Your task to perform on an android device: Add usb-c to the cart on ebay.com, then select checkout. Image 0: 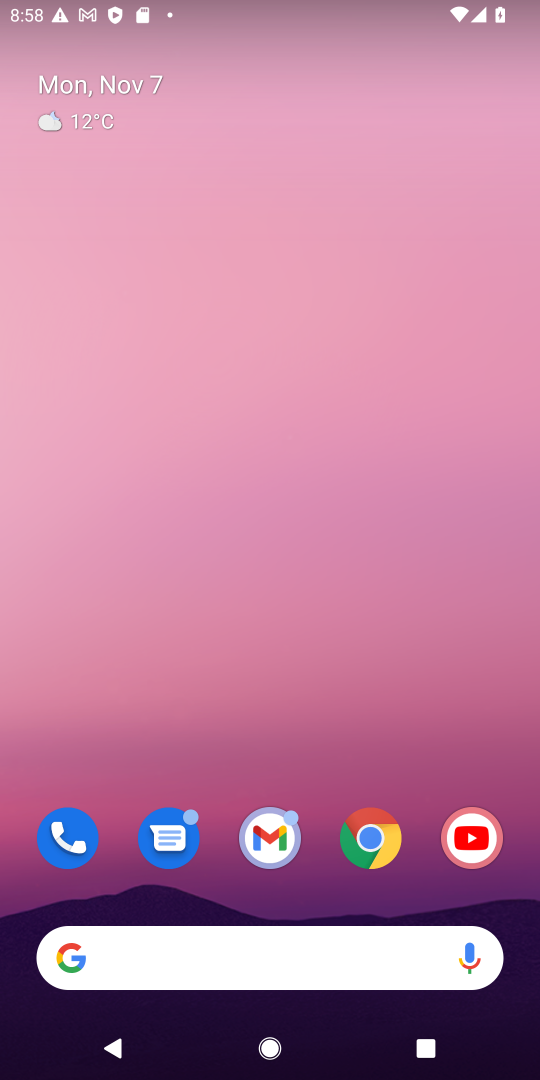
Step 0: click (366, 830)
Your task to perform on an android device: Add usb-c to the cart on ebay.com, then select checkout. Image 1: 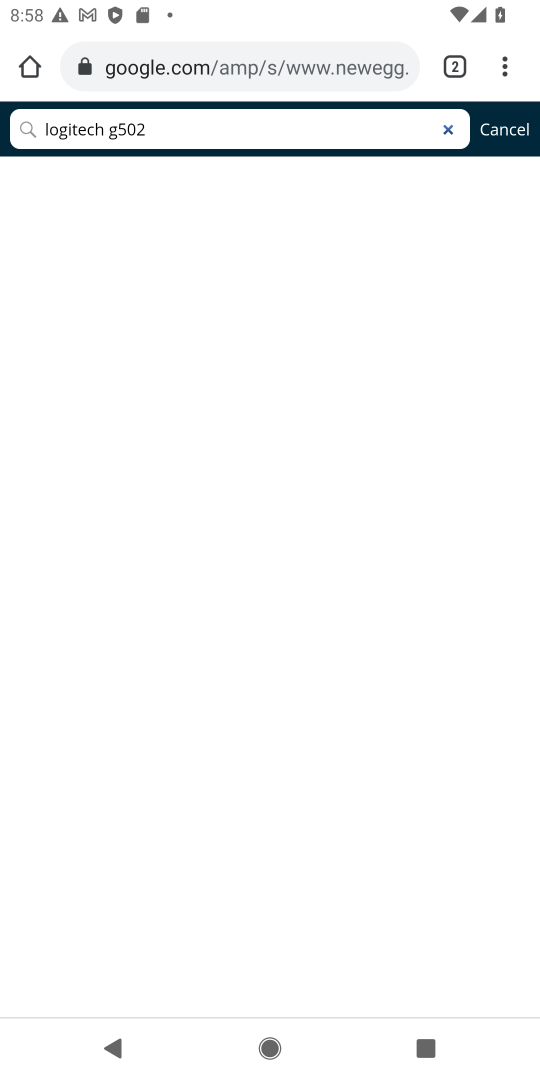
Step 1: click (457, 66)
Your task to perform on an android device: Add usb-c to the cart on ebay.com, then select checkout. Image 2: 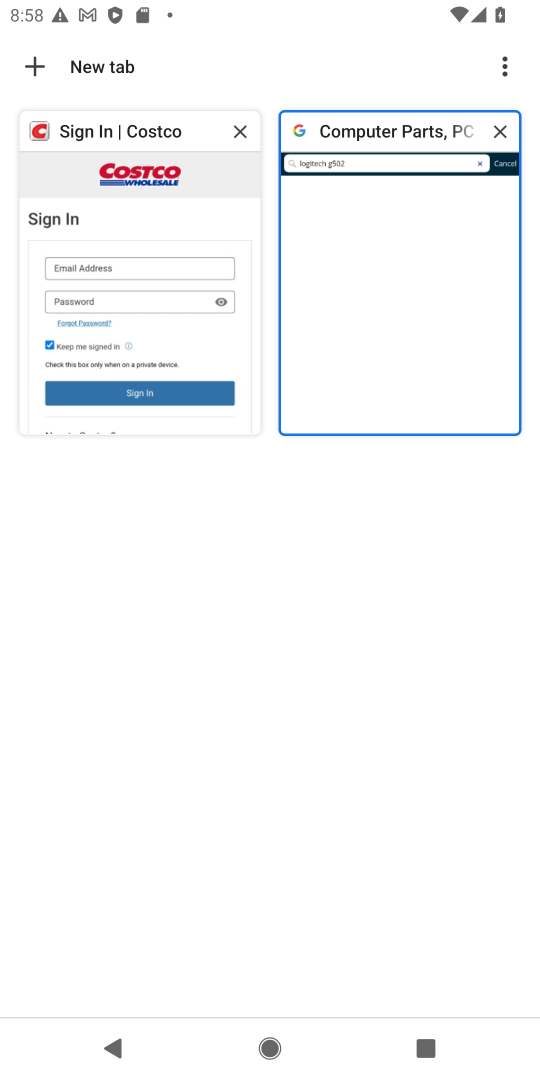
Step 2: click (36, 73)
Your task to perform on an android device: Add usb-c to the cart on ebay.com, then select checkout. Image 3: 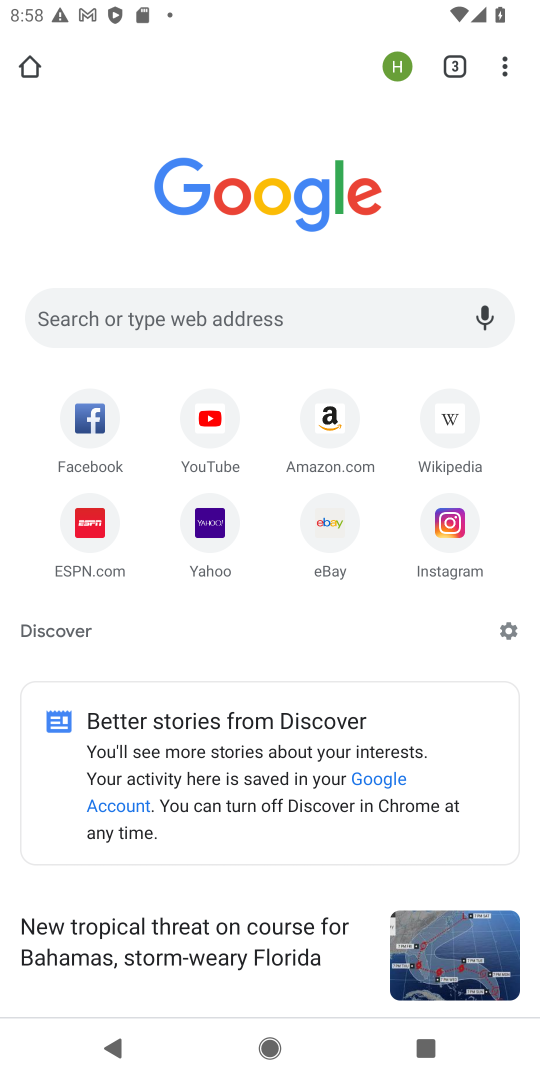
Step 3: click (332, 513)
Your task to perform on an android device: Add usb-c to the cart on ebay.com, then select checkout. Image 4: 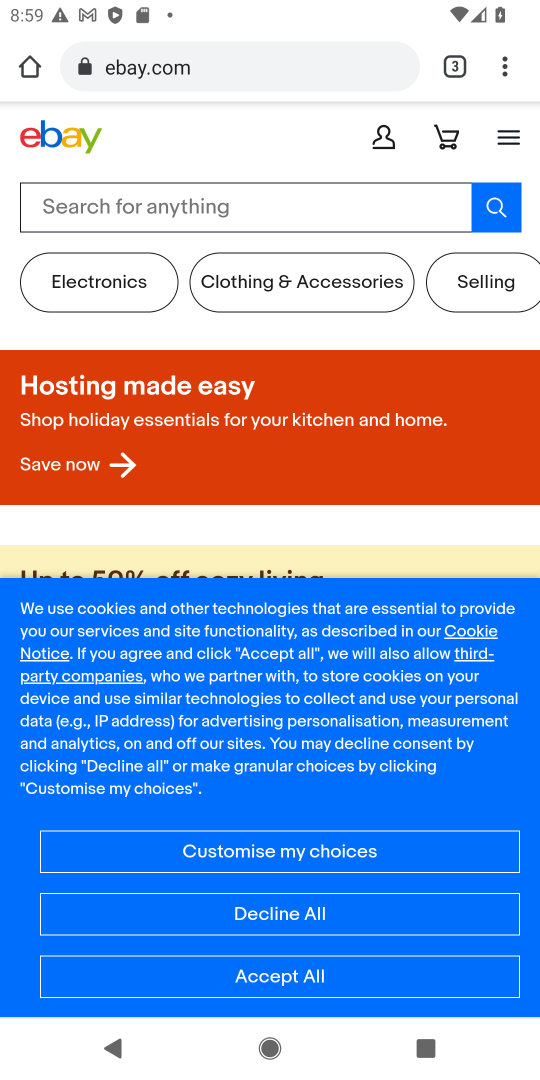
Step 4: click (246, 919)
Your task to perform on an android device: Add usb-c to the cart on ebay.com, then select checkout. Image 5: 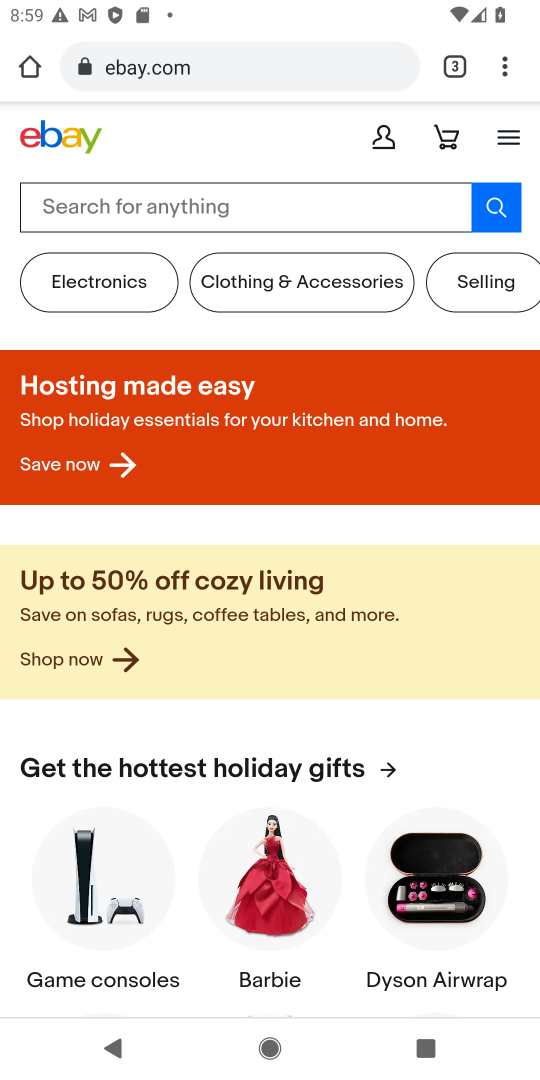
Step 5: click (164, 213)
Your task to perform on an android device: Add usb-c to the cart on ebay.com, then select checkout. Image 6: 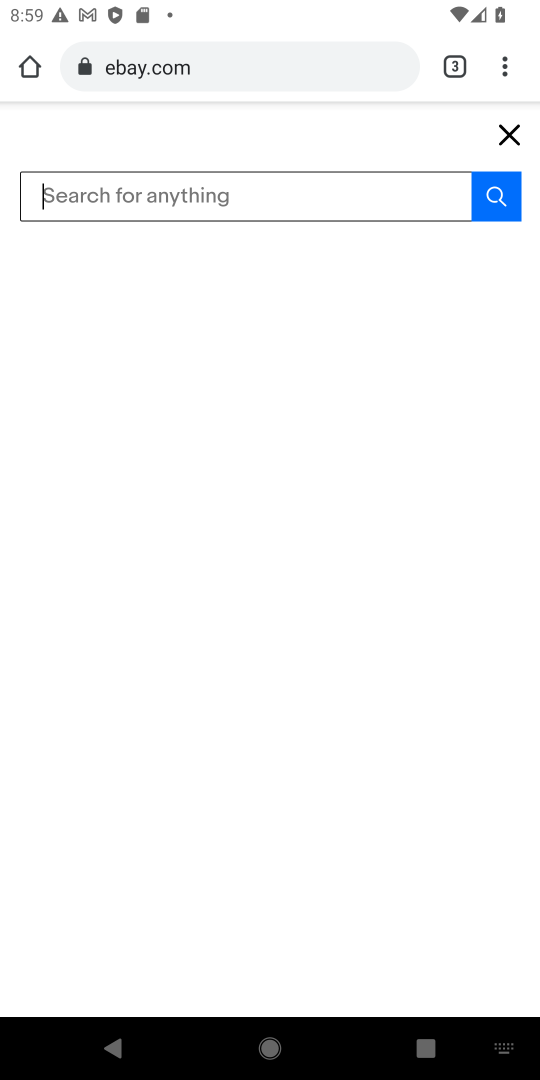
Step 6: type "usb-c"
Your task to perform on an android device: Add usb-c to the cart on ebay.com, then select checkout. Image 7: 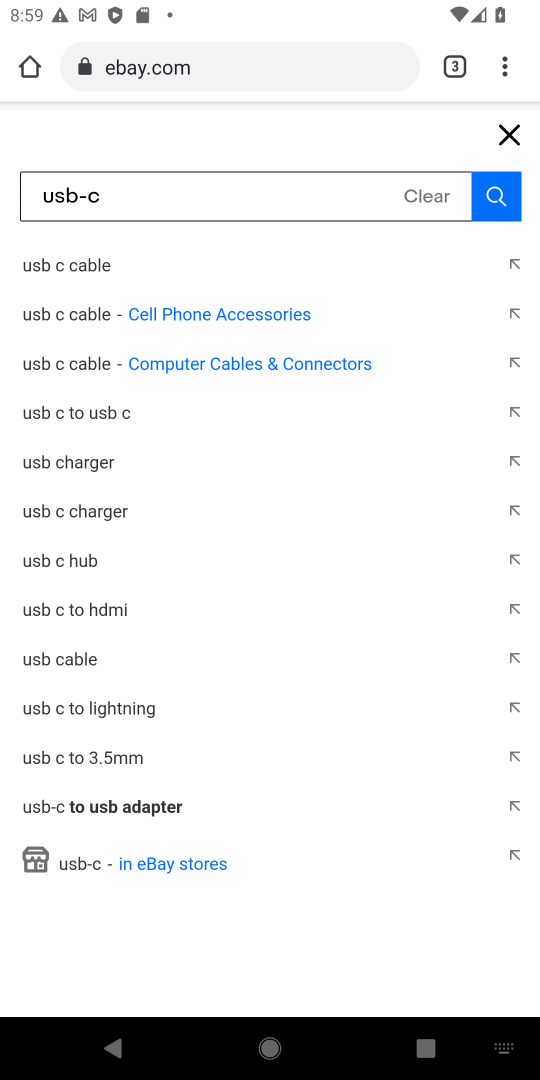
Step 7: click (89, 316)
Your task to perform on an android device: Add usb-c to the cart on ebay.com, then select checkout. Image 8: 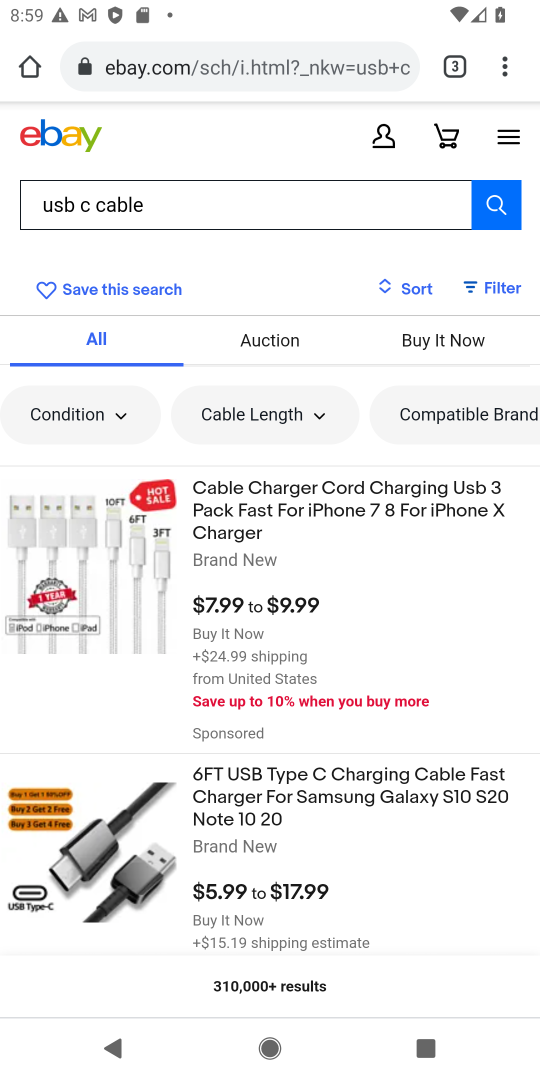
Step 8: click (349, 537)
Your task to perform on an android device: Add usb-c to the cart on ebay.com, then select checkout. Image 9: 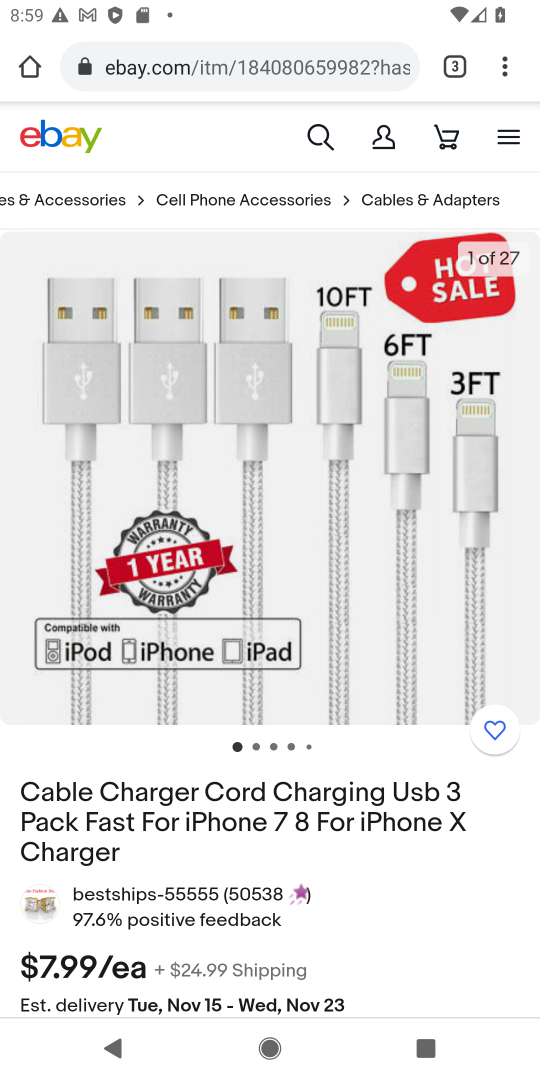
Step 9: drag from (383, 810) to (389, 15)
Your task to perform on an android device: Add usb-c to the cart on ebay.com, then select checkout. Image 10: 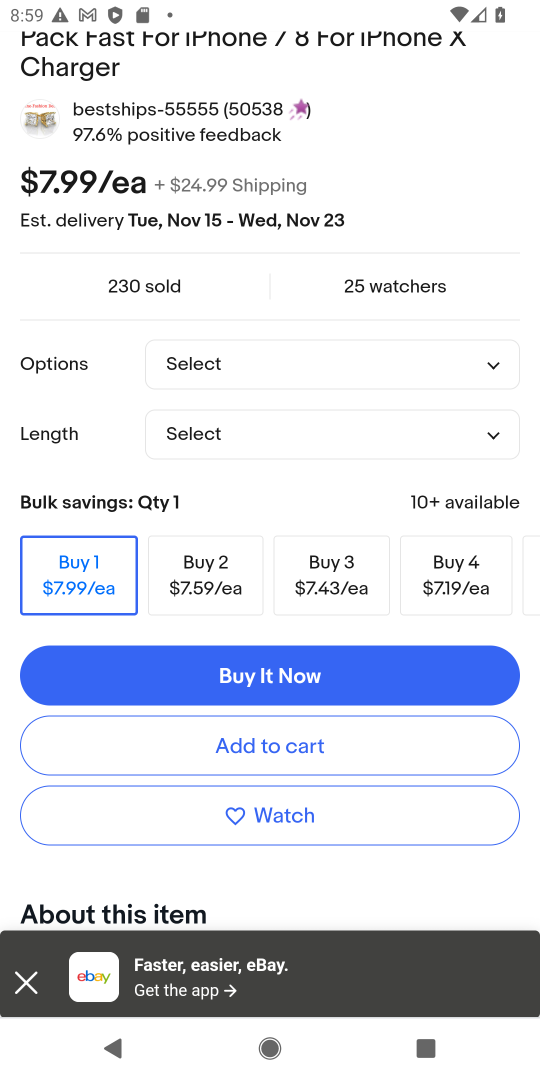
Step 10: click (341, 765)
Your task to perform on an android device: Add usb-c to the cart on ebay.com, then select checkout. Image 11: 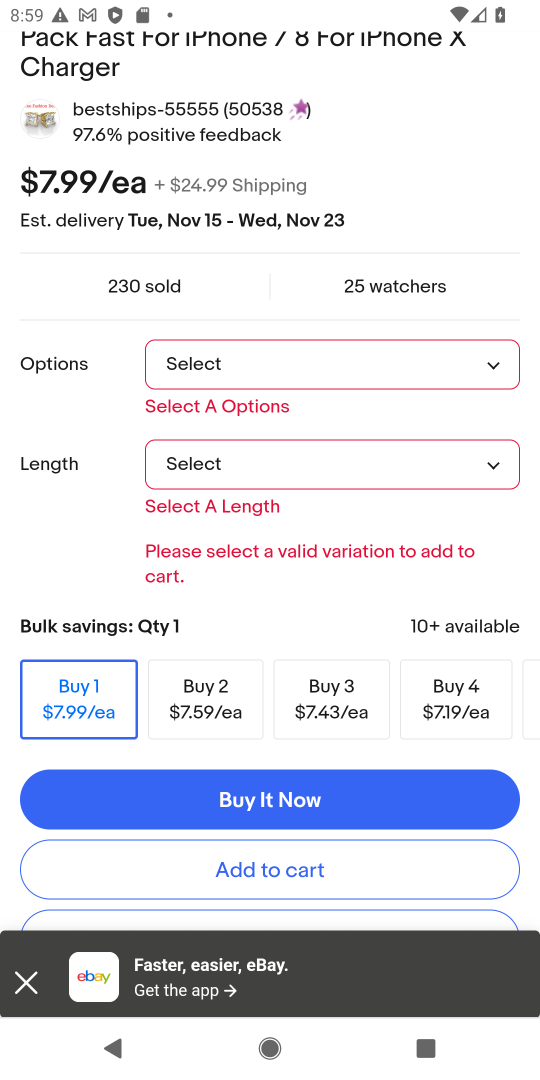
Step 11: click (486, 362)
Your task to perform on an android device: Add usb-c to the cart on ebay.com, then select checkout. Image 12: 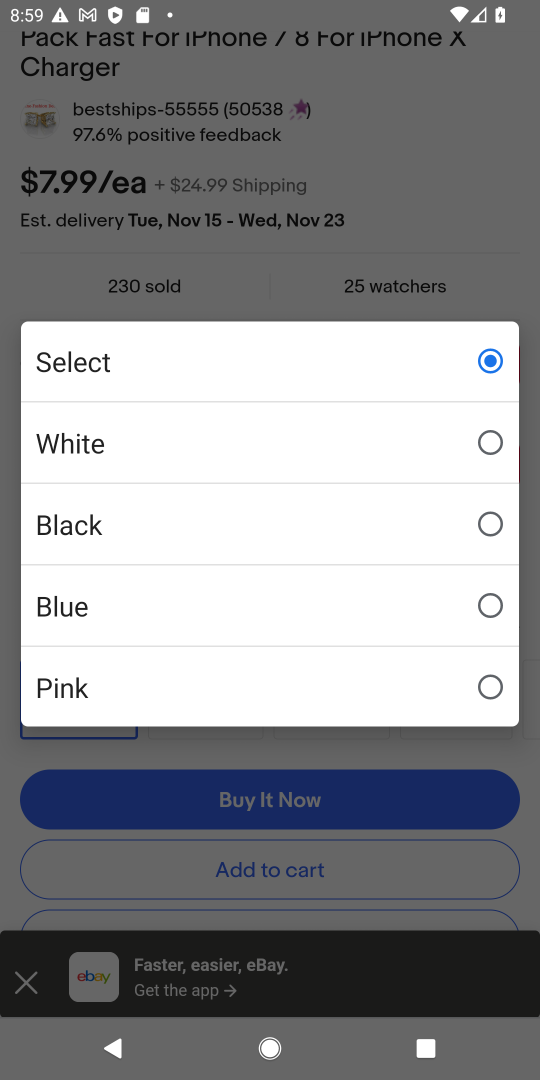
Step 12: click (212, 452)
Your task to perform on an android device: Add usb-c to the cart on ebay.com, then select checkout. Image 13: 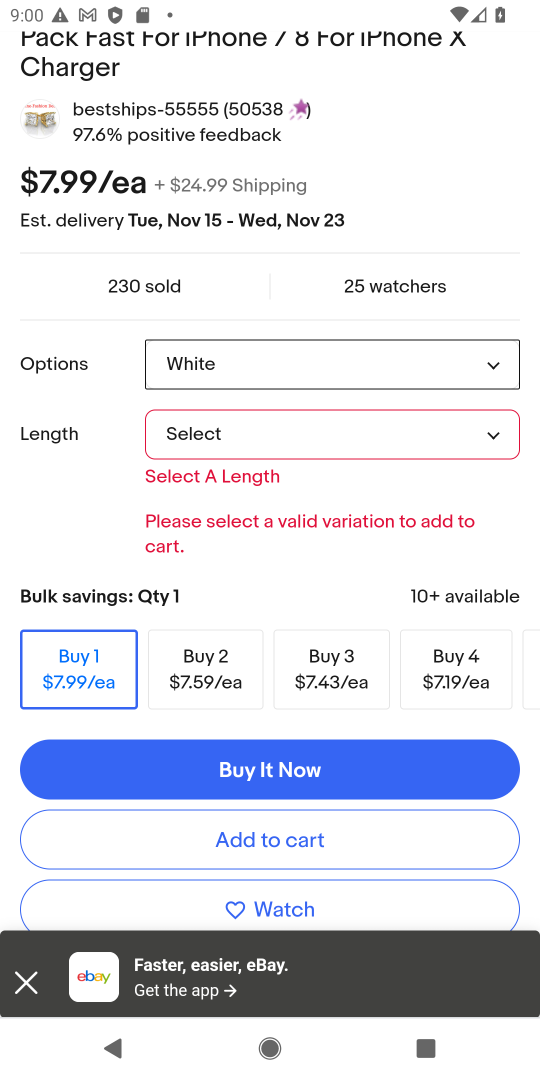
Step 13: click (336, 441)
Your task to perform on an android device: Add usb-c to the cart on ebay.com, then select checkout. Image 14: 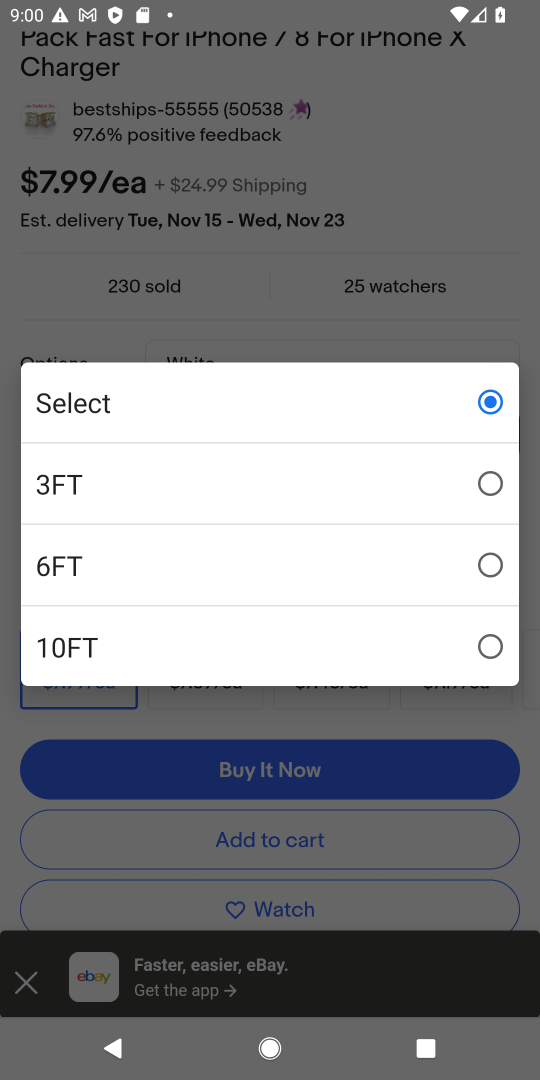
Step 14: click (245, 486)
Your task to perform on an android device: Add usb-c to the cart on ebay.com, then select checkout. Image 15: 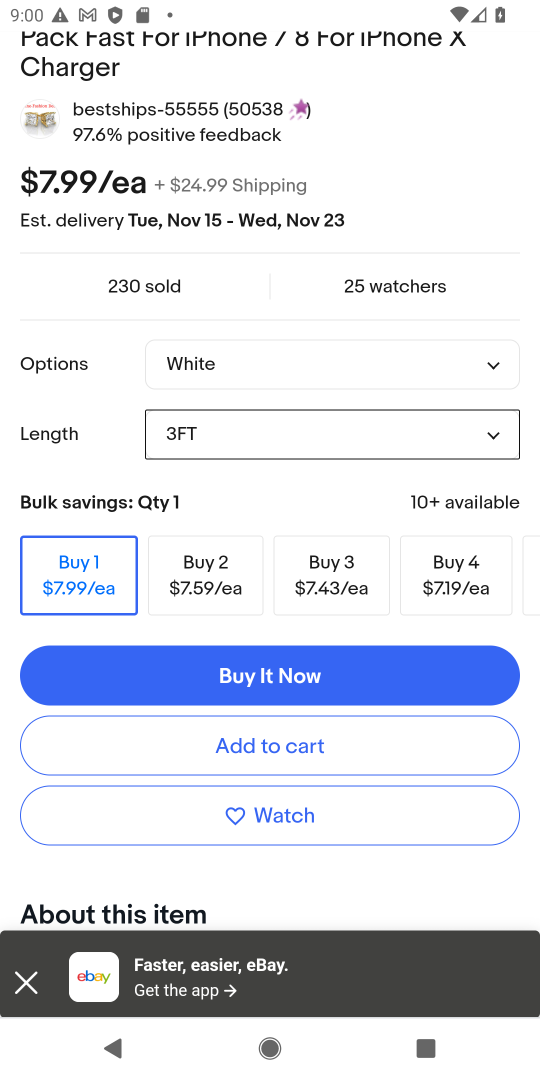
Step 15: click (365, 749)
Your task to perform on an android device: Add usb-c to the cart on ebay.com, then select checkout. Image 16: 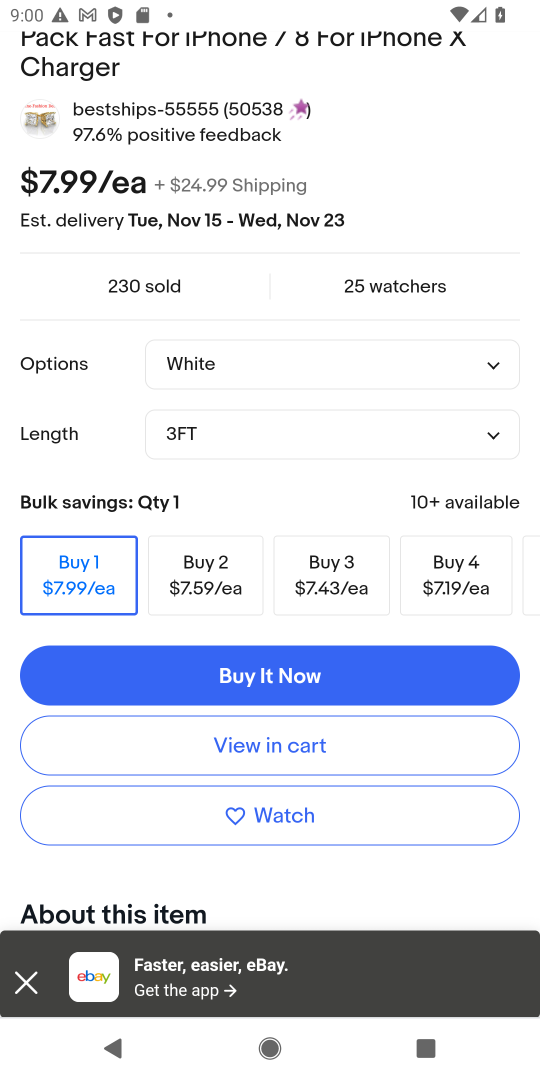
Step 16: click (309, 746)
Your task to perform on an android device: Add usb-c to the cart on ebay.com, then select checkout. Image 17: 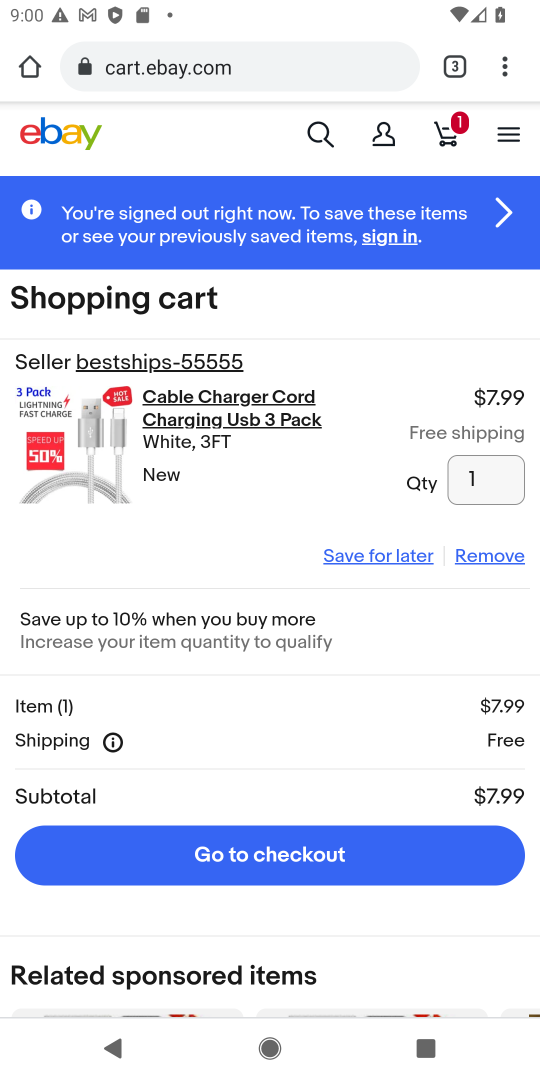
Step 17: click (328, 852)
Your task to perform on an android device: Add usb-c to the cart on ebay.com, then select checkout. Image 18: 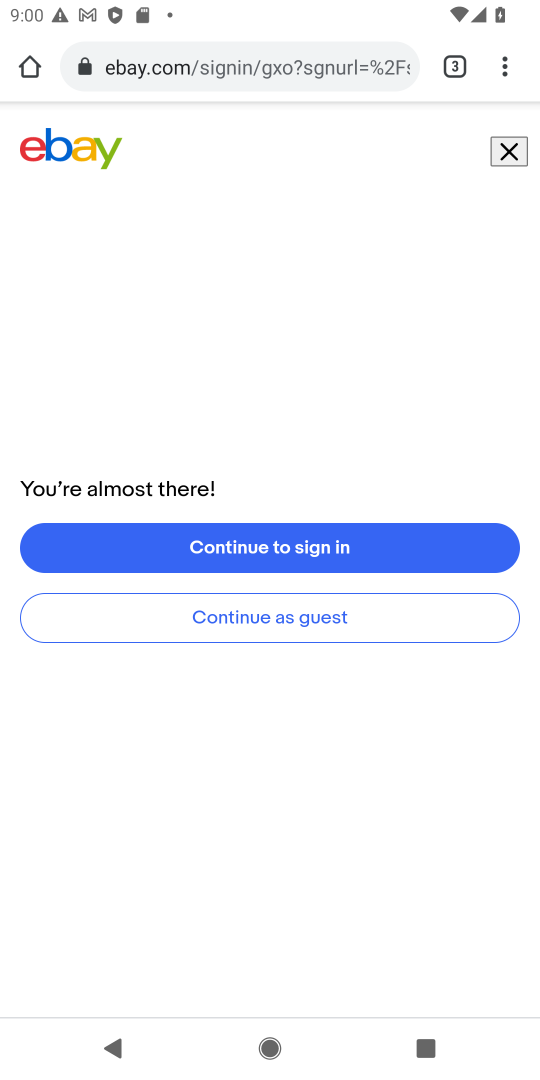
Step 18: task complete